Your task to perform on an android device: Add "logitech g pro" to the cart on ebay.com, then select checkout. Image 0: 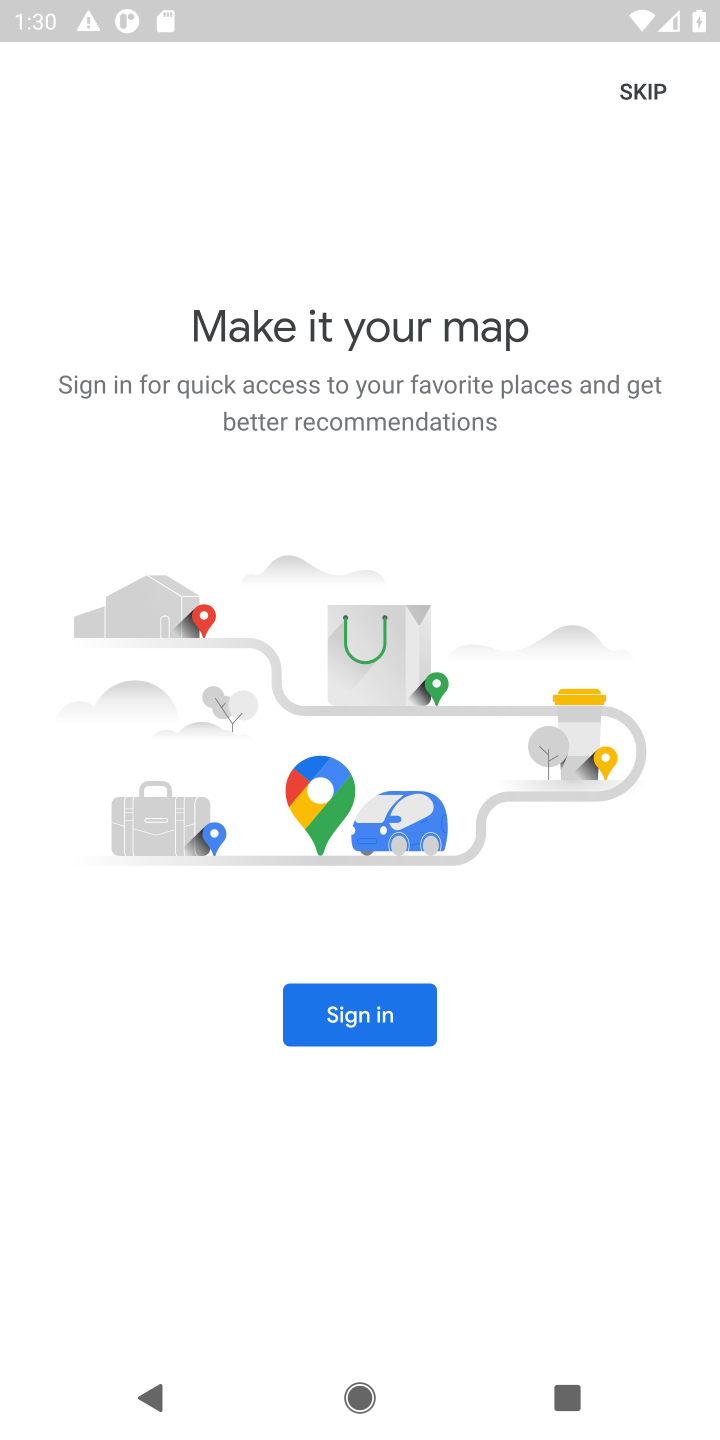
Step 0: press home button
Your task to perform on an android device: Add "logitech g pro" to the cart on ebay.com, then select checkout. Image 1: 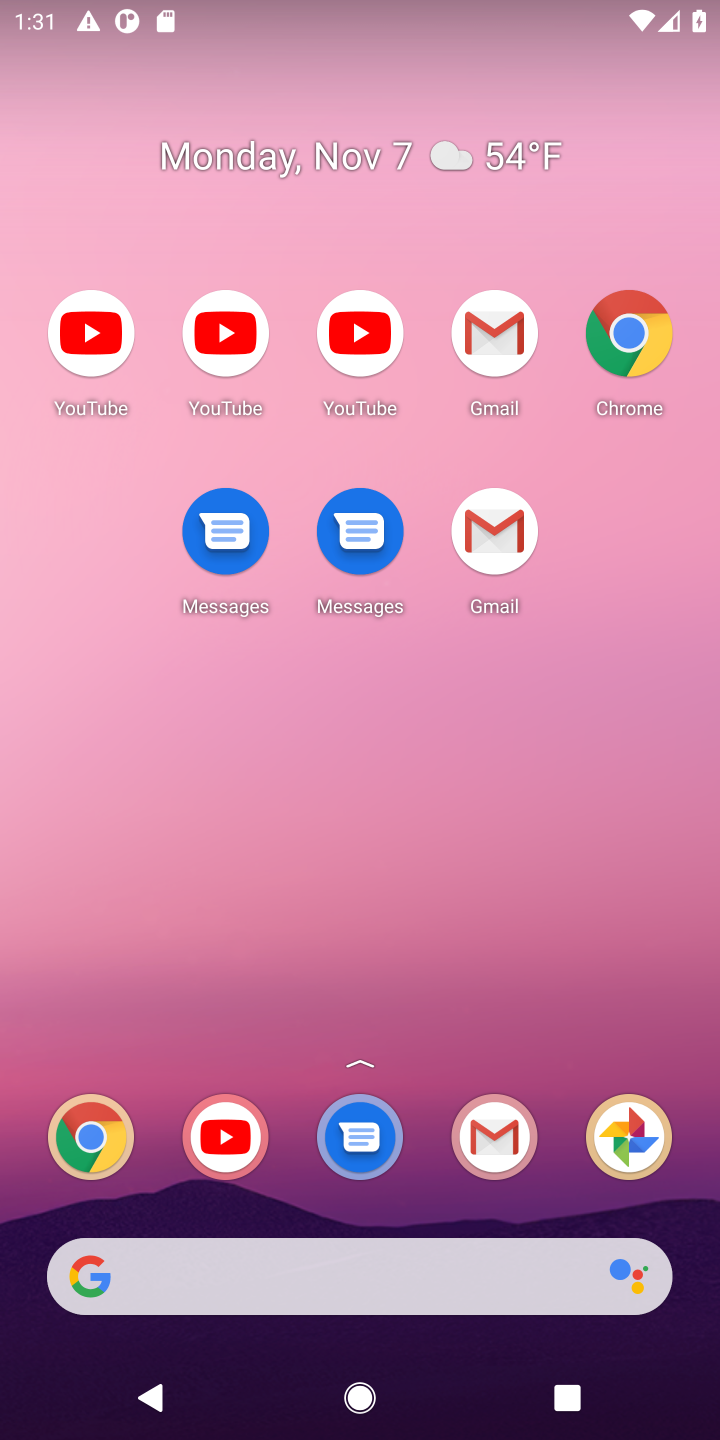
Step 1: drag from (437, 1200) to (493, 91)
Your task to perform on an android device: Add "logitech g pro" to the cart on ebay.com, then select checkout. Image 2: 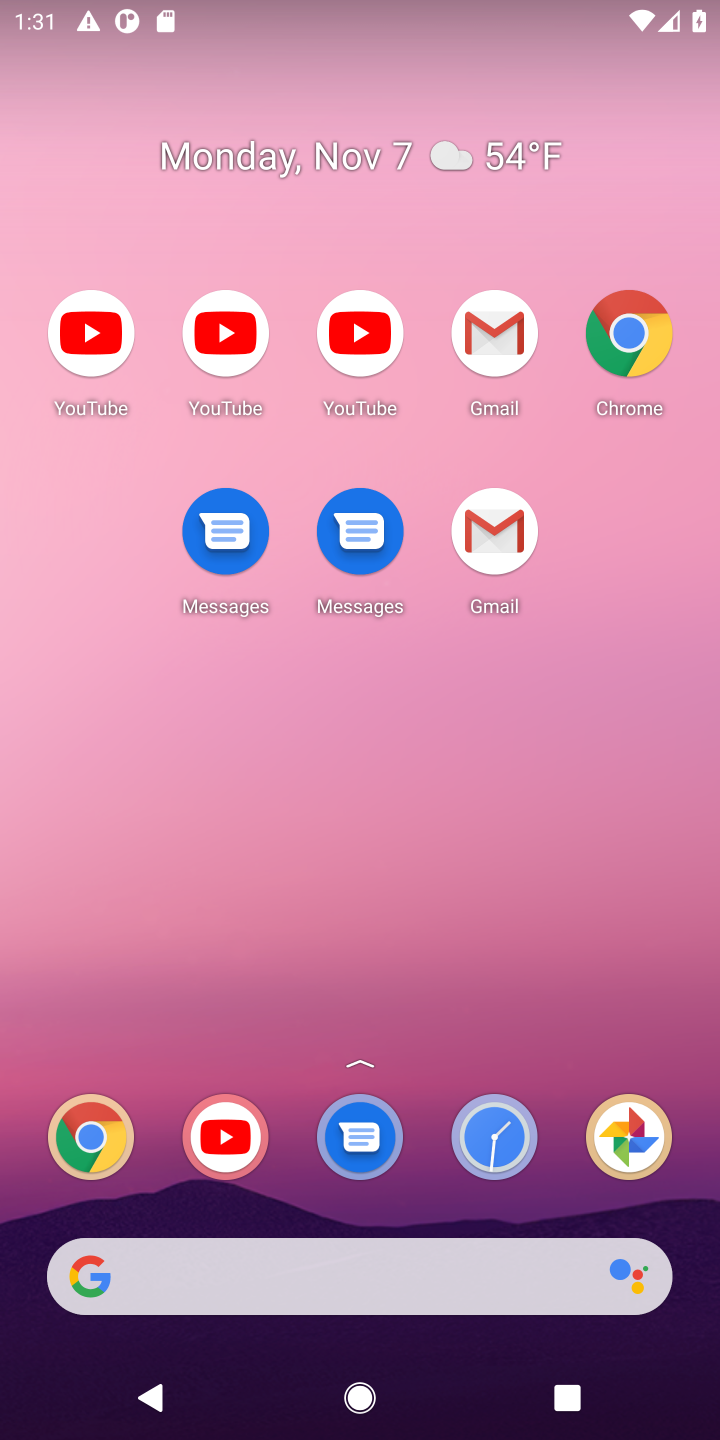
Step 2: drag from (429, 1194) to (350, 264)
Your task to perform on an android device: Add "logitech g pro" to the cart on ebay.com, then select checkout. Image 3: 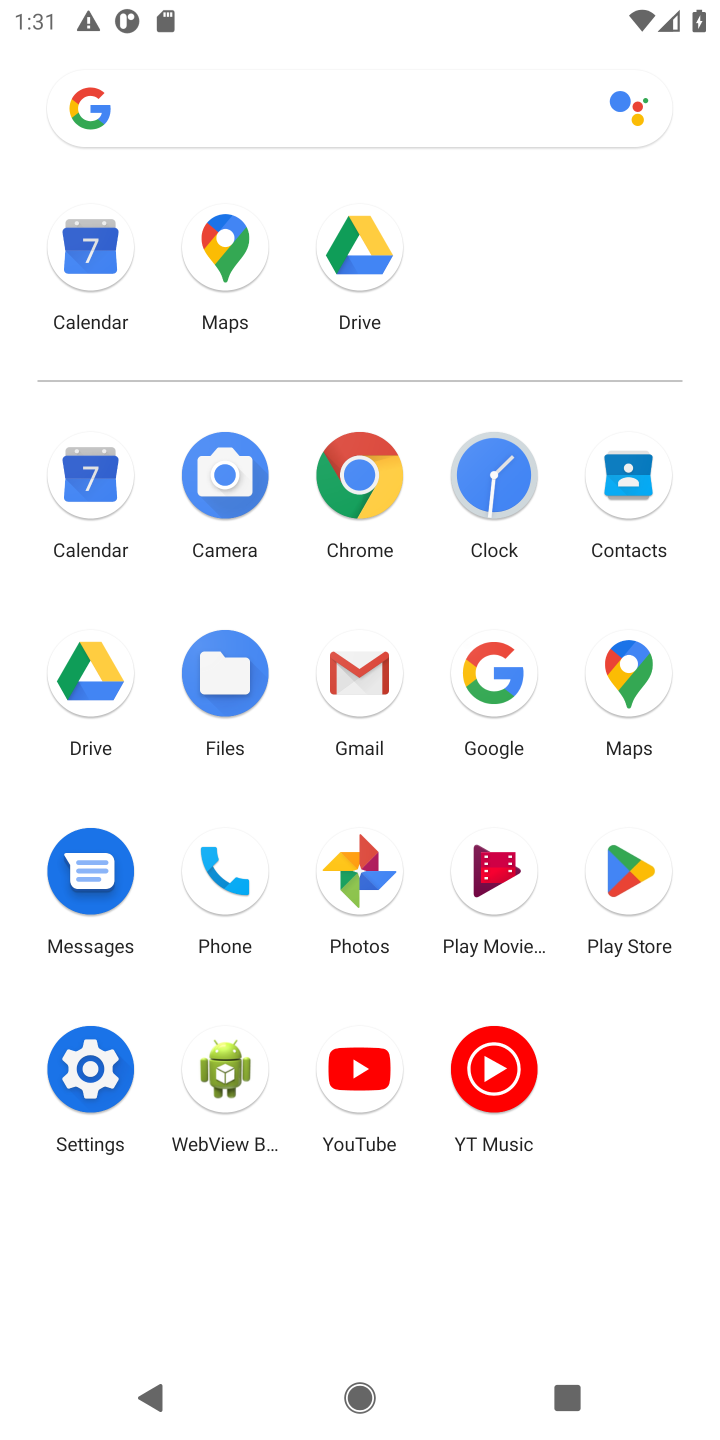
Step 3: click (360, 464)
Your task to perform on an android device: Add "logitech g pro" to the cart on ebay.com, then select checkout. Image 4: 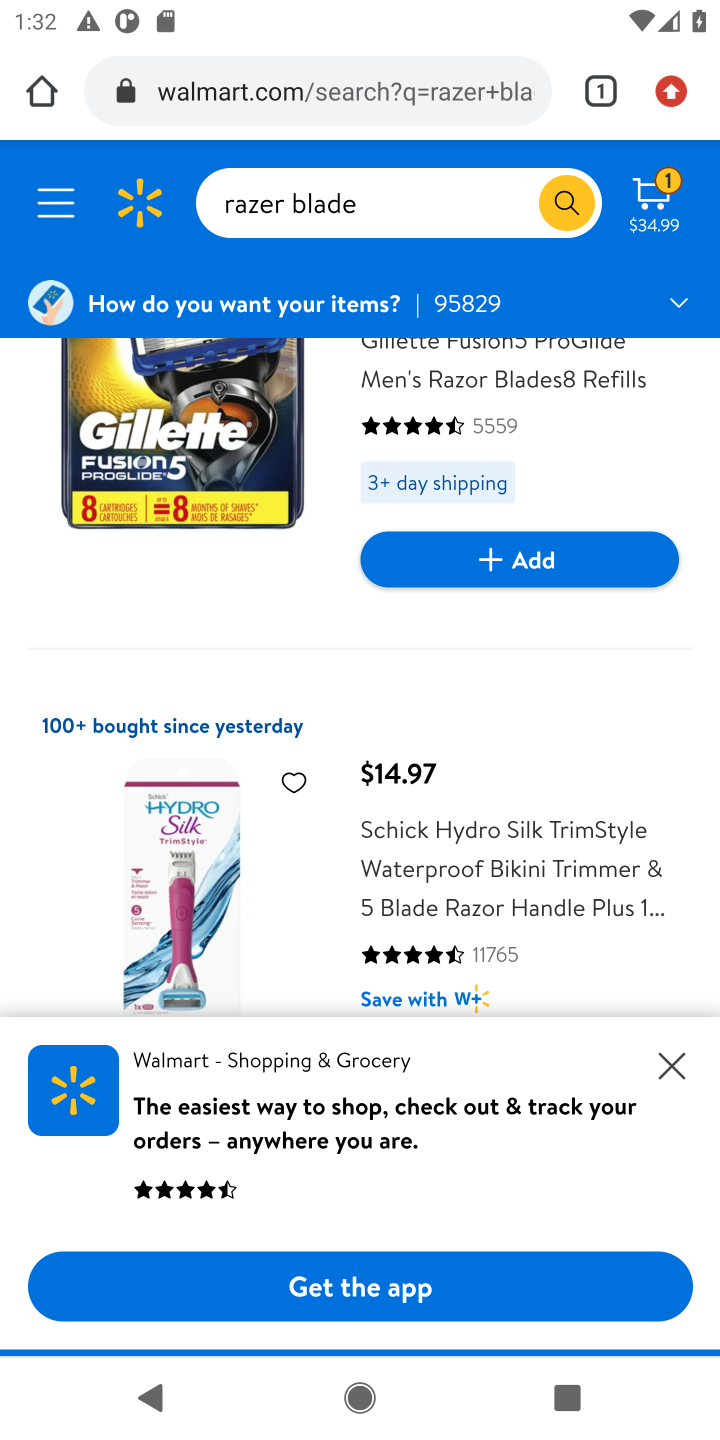
Step 4: click (401, 76)
Your task to perform on an android device: Add "logitech g pro" to the cart on ebay.com, then select checkout. Image 5: 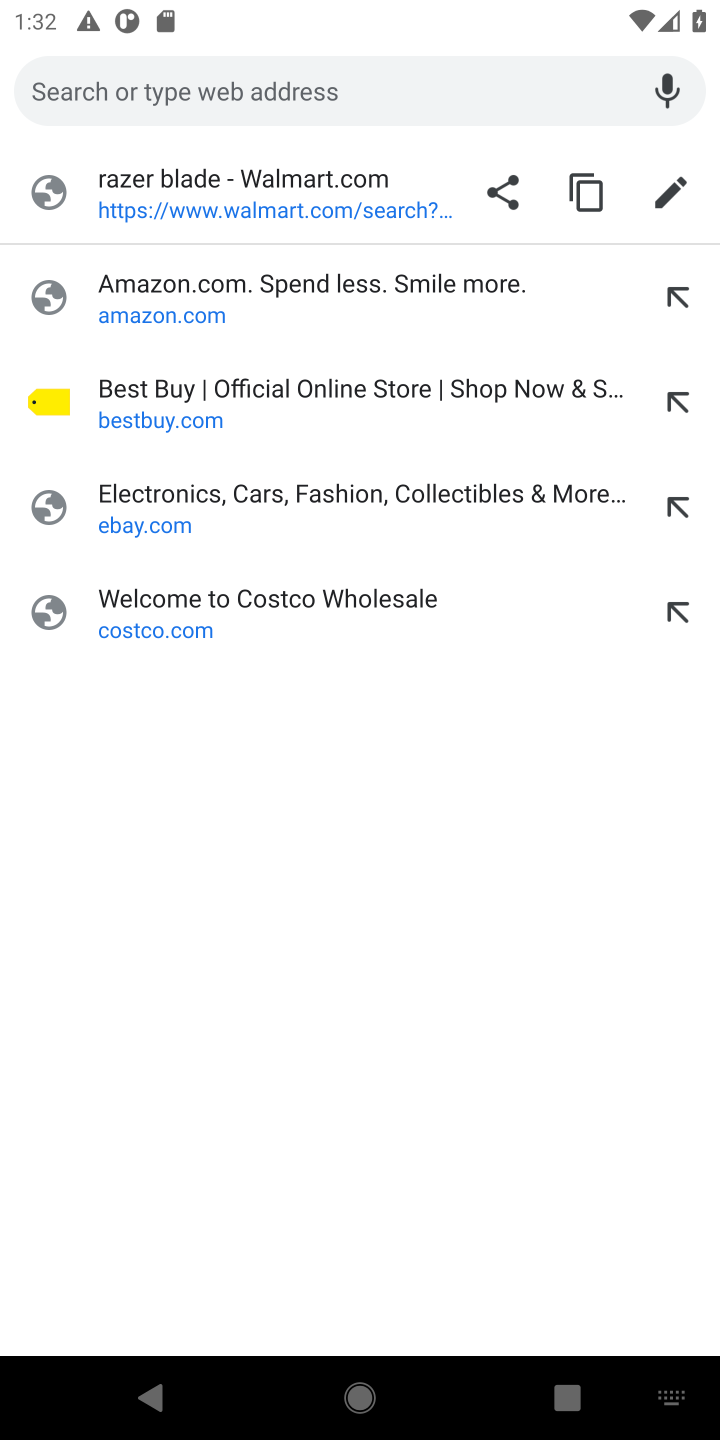
Step 5: type "ebay.com"
Your task to perform on an android device: Add "logitech g pro" to the cart on ebay.com, then select checkout. Image 6: 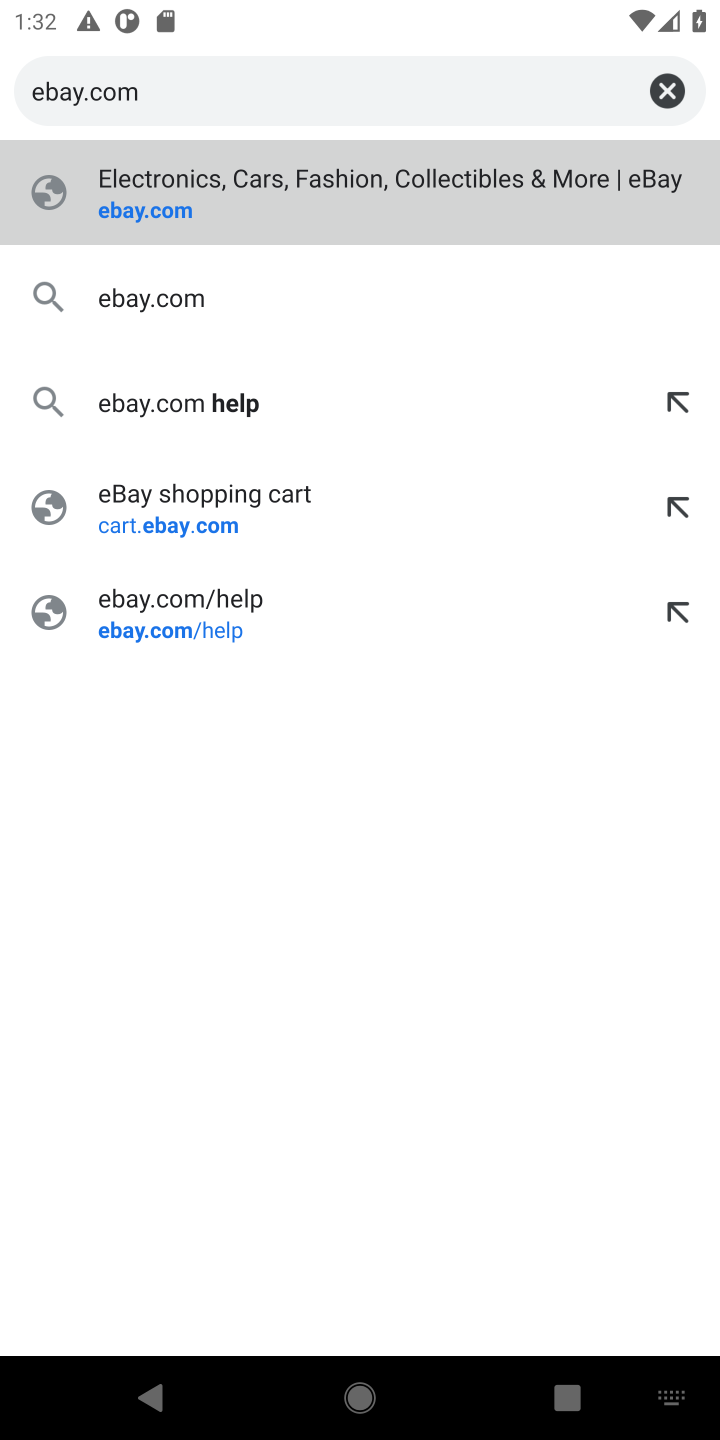
Step 6: press enter
Your task to perform on an android device: Add "logitech g pro" to the cart on ebay.com, then select checkout. Image 7: 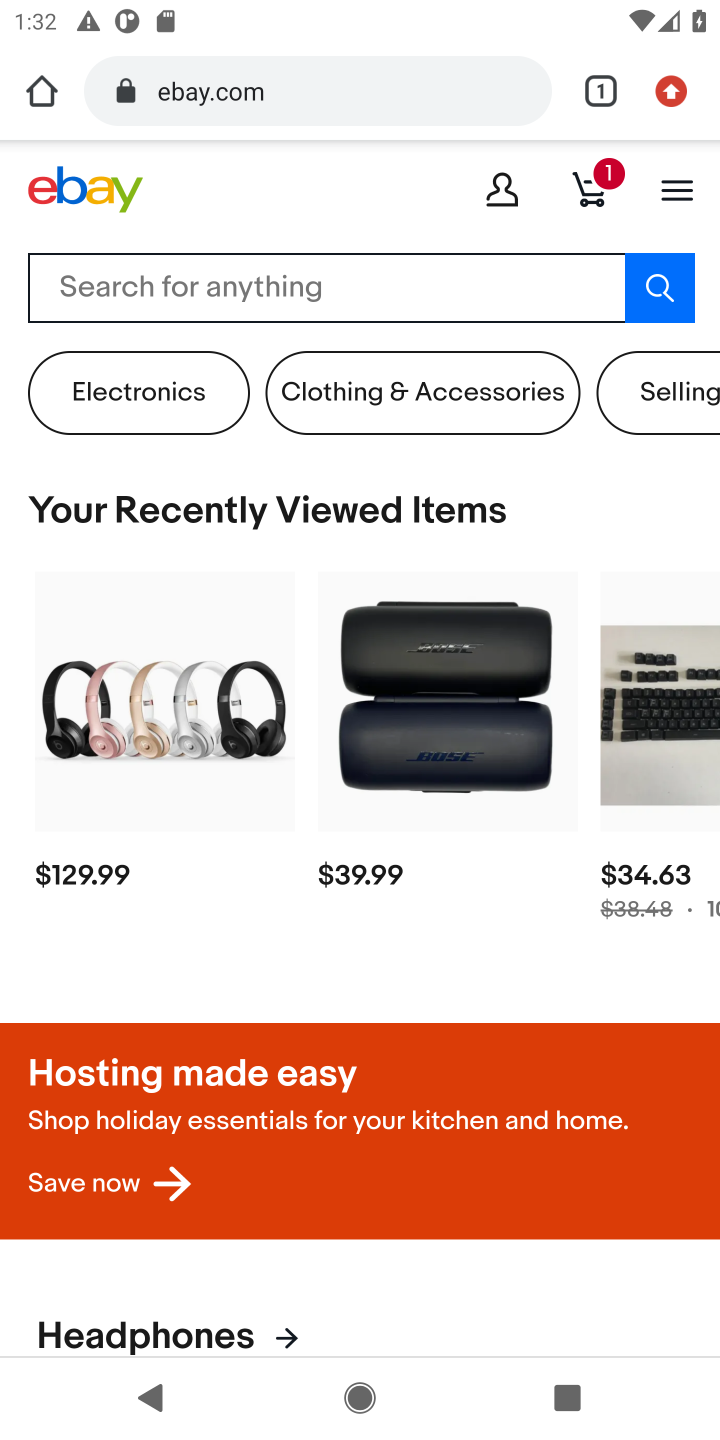
Step 7: click (462, 275)
Your task to perform on an android device: Add "logitech g pro" to the cart on ebay.com, then select checkout. Image 8: 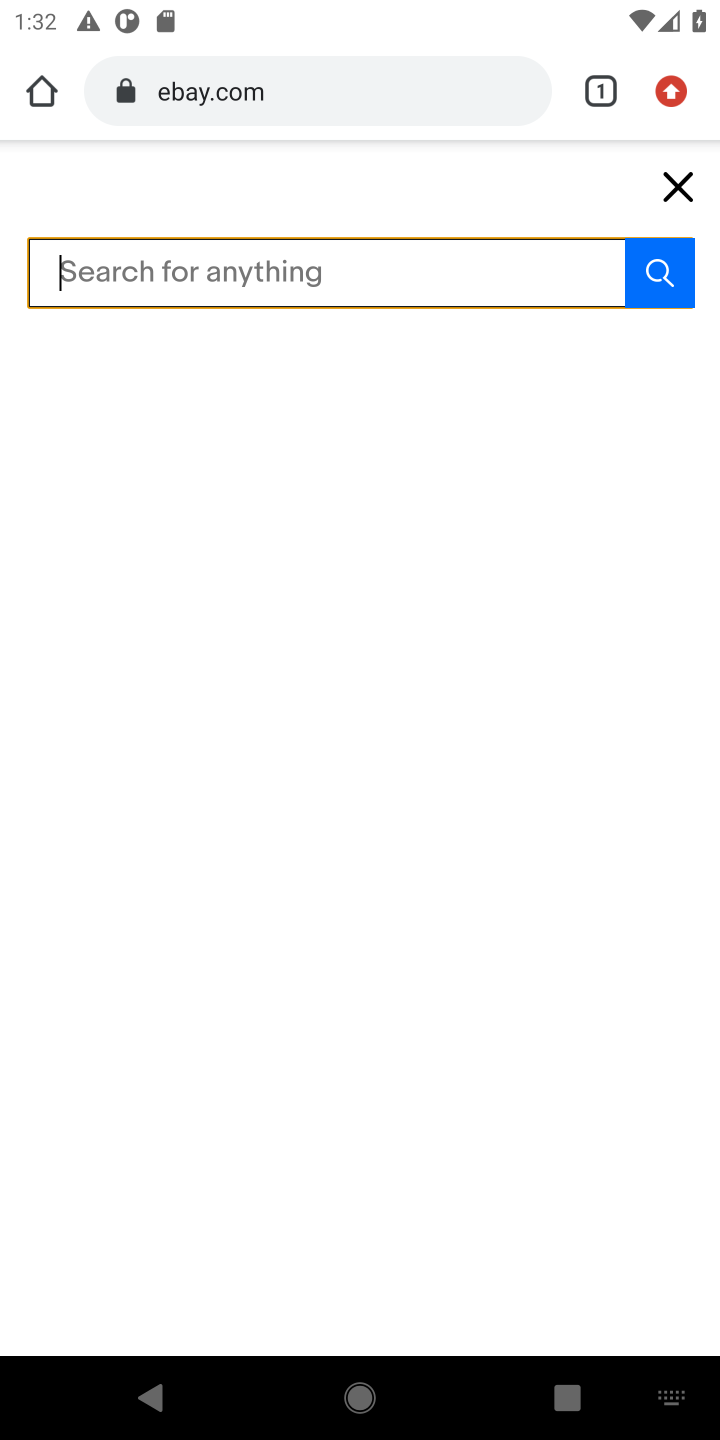
Step 8: type "logitech g pro"
Your task to perform on an android device: Add "logitech g pro" to the cart on ebay.com, then select checkout. Image 9: 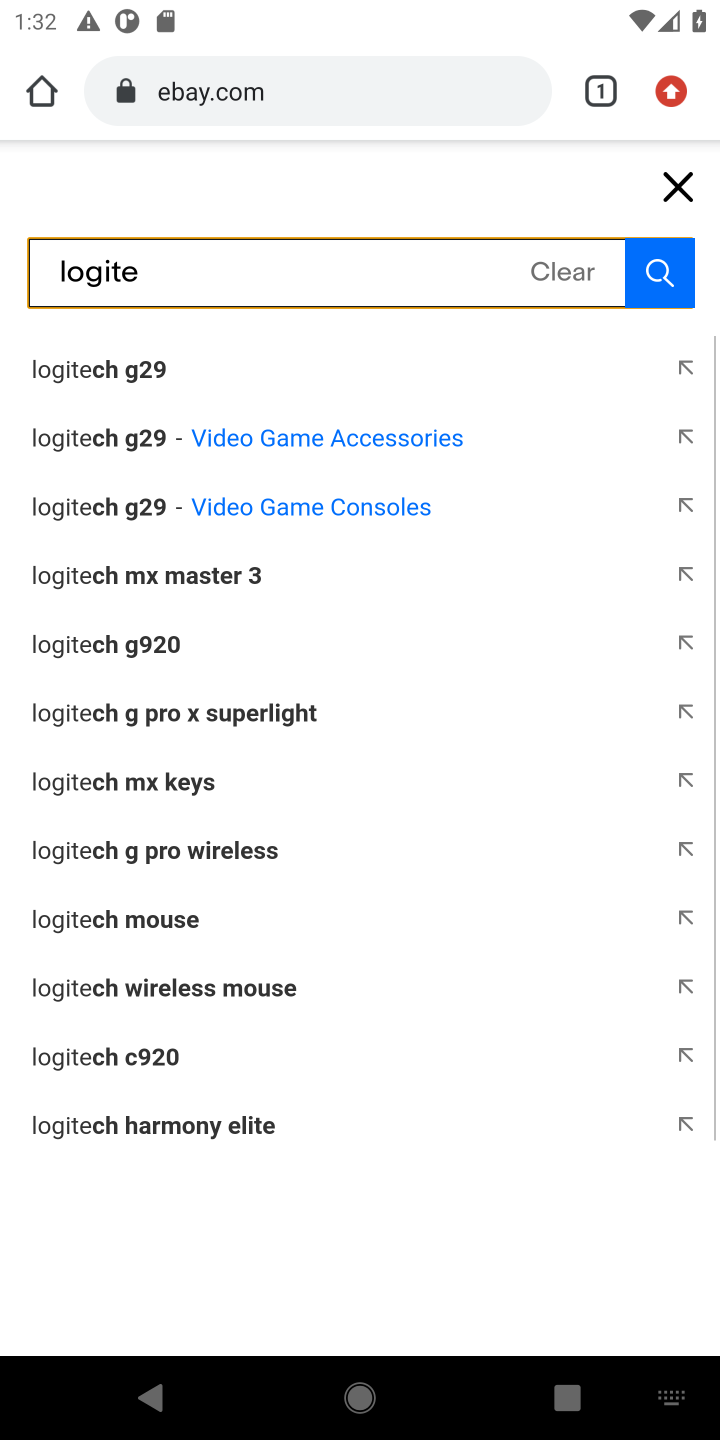
Step 9: press enter
Your task to perform on an android device: Add "logitech g pro" to the cart on ebay.com, then select checkout. Image 10: 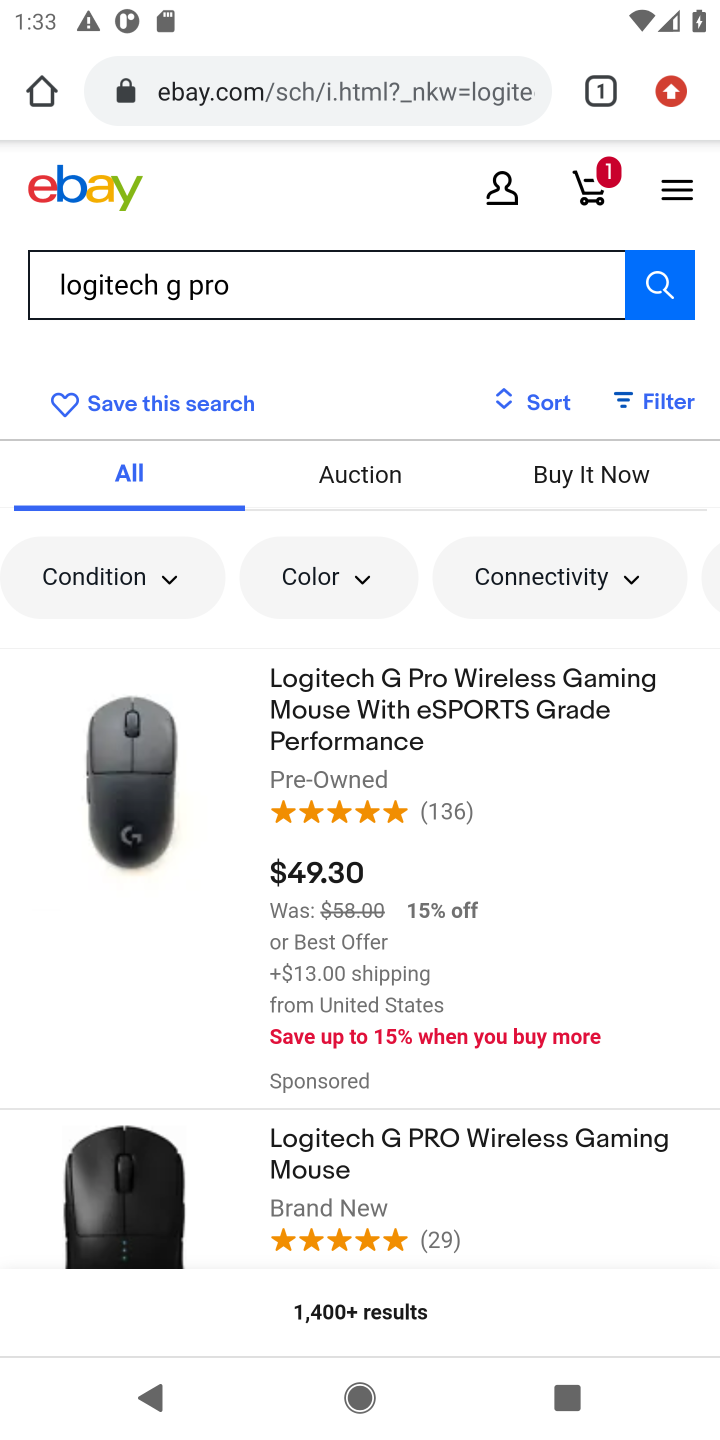
Step 10: click (428, 687)
Your task to perform on an android device: Add "logitech g pro" to the cart on ebay.com, then select checkout. Image 11: 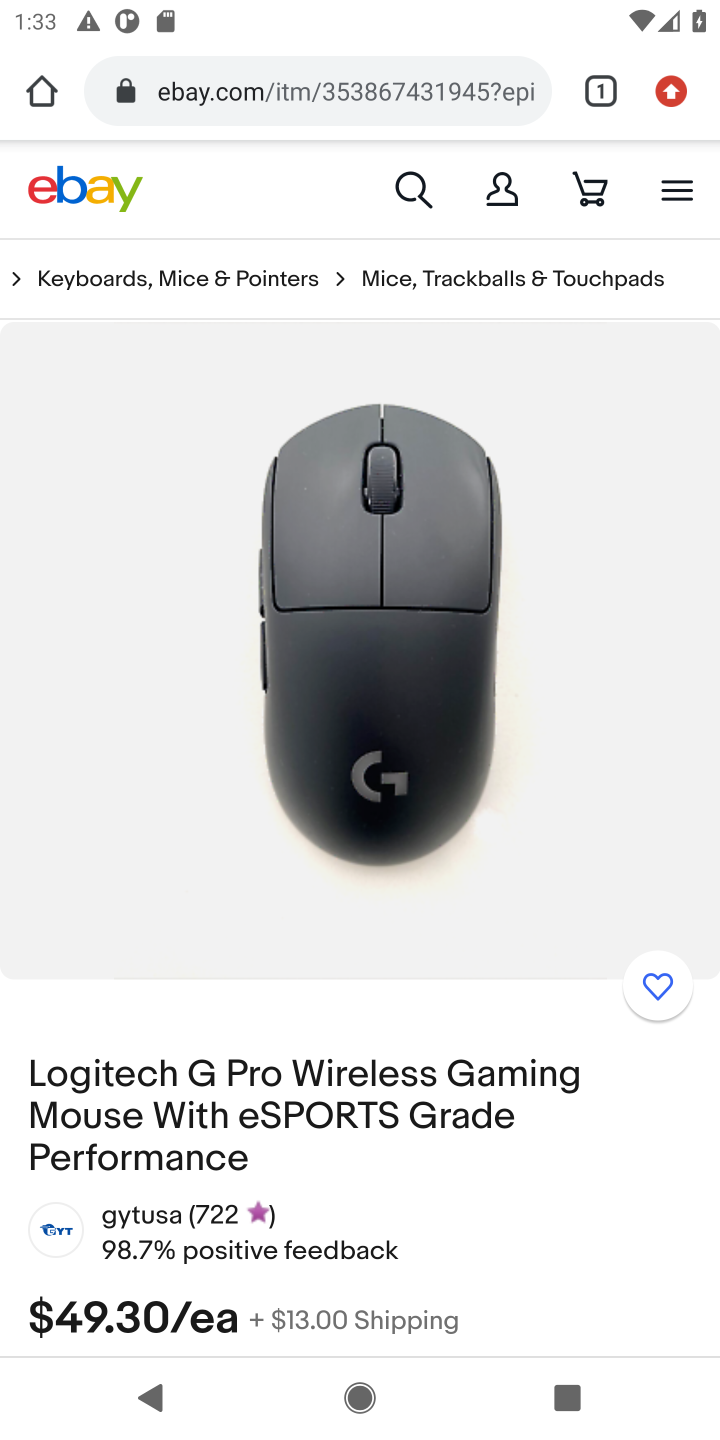
Step 11: drag from (471, 1184) to (355, 296)
Your task to perform on an android device: Add "logitech g pro" to the cart on ebay.com, then select checkout. Image 12: 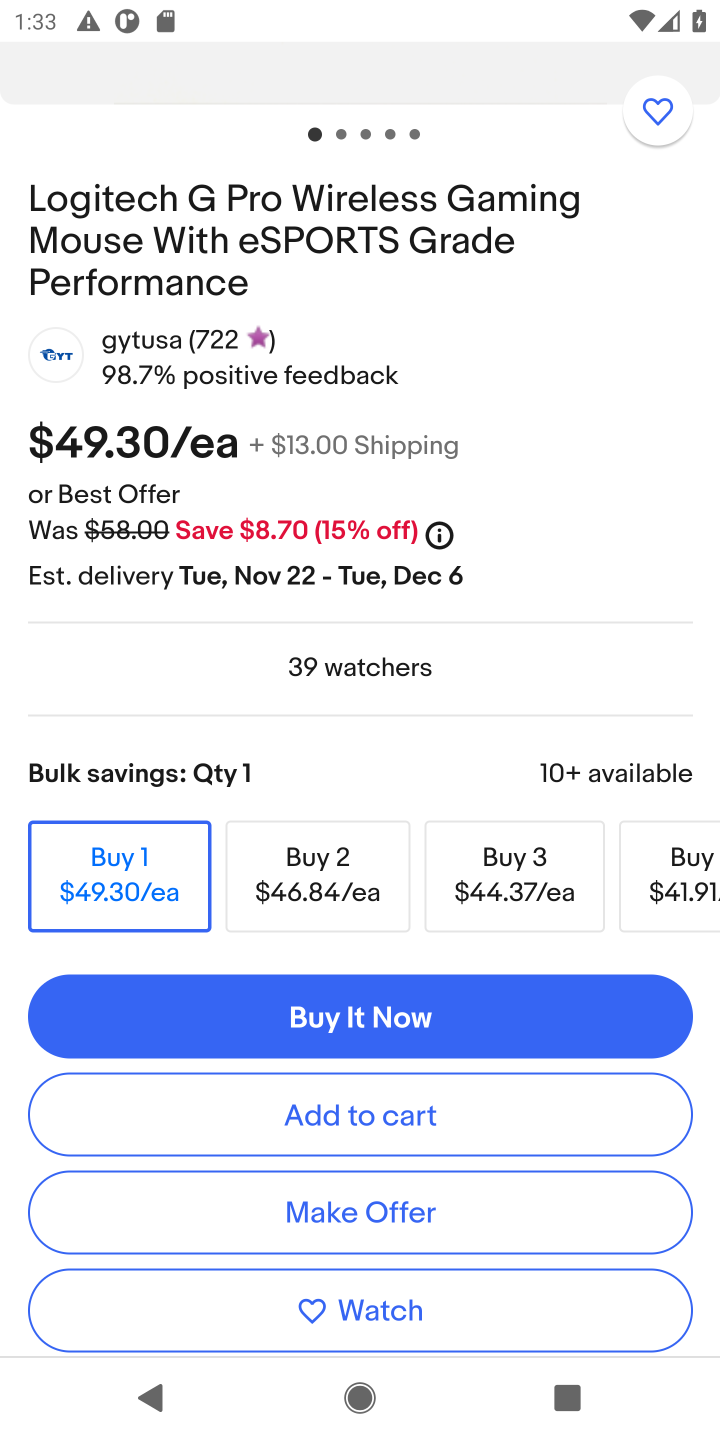
Step 12: click (437, 1104)
Your task to perform on an android device: Add "logitech g pro" to the cart on ebay.com, then select checkout. Image 13: 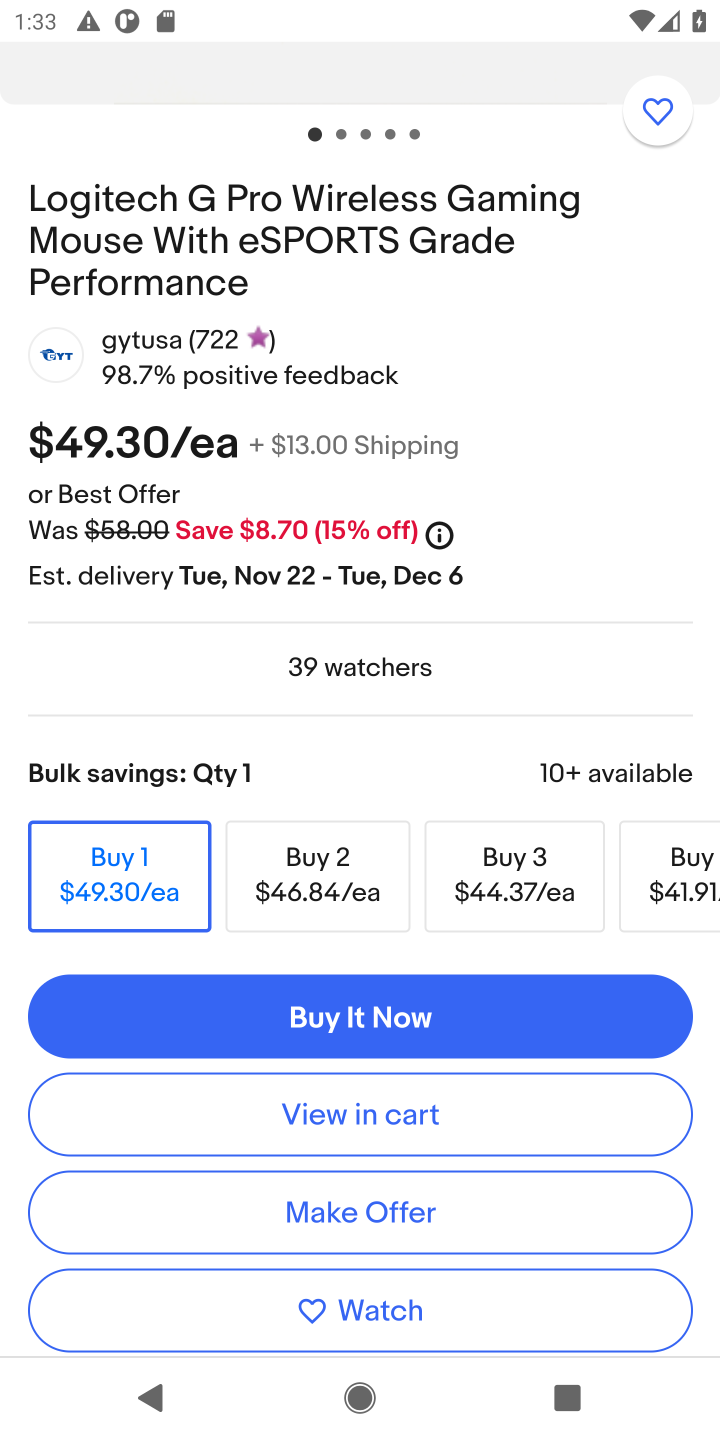
Step 13: click (437, 1119)
Your task to perform on an android device: Add "logitech g pro" to the cart on ebay.com, then select checkout. Image 14: 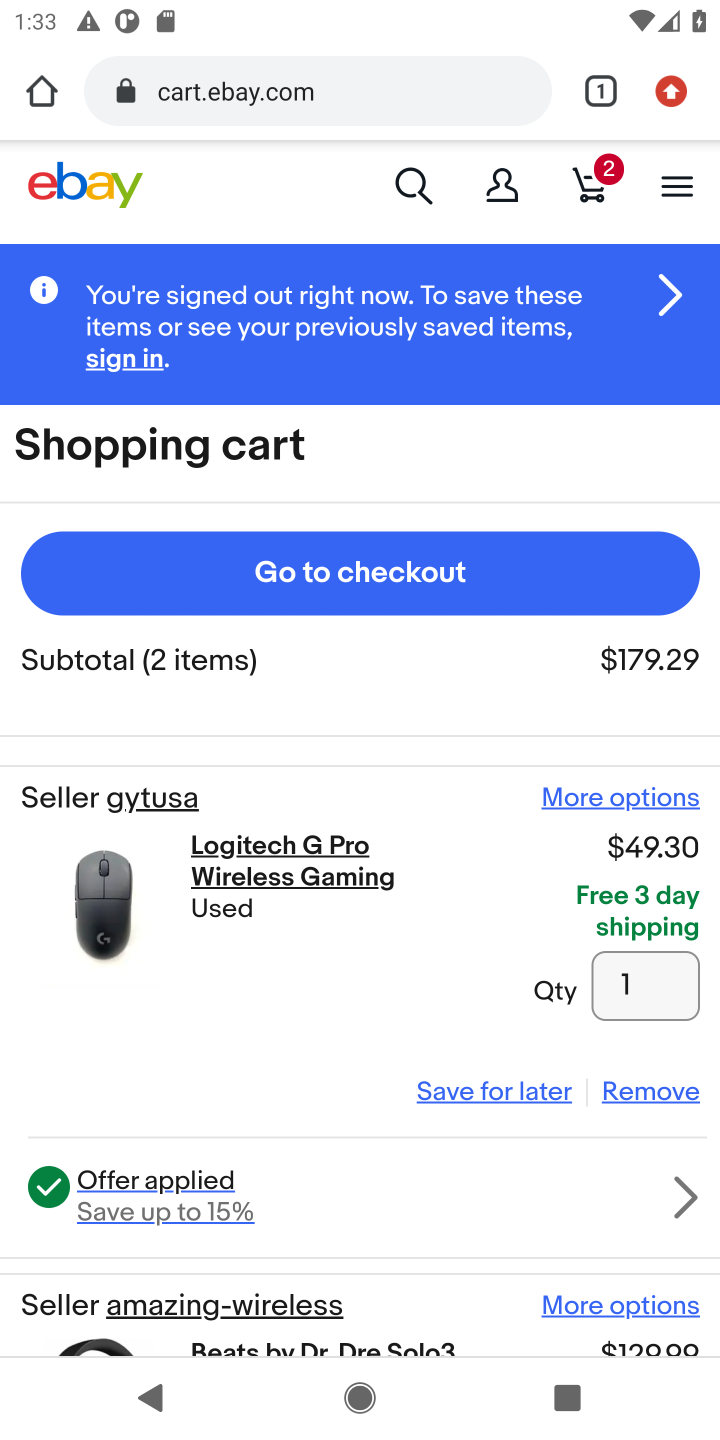
Step 14: click (450, 579)
Your task to perform on an android device: Add "logitech g pro" to the cart on ebay.com, then select checkout. Image 15: 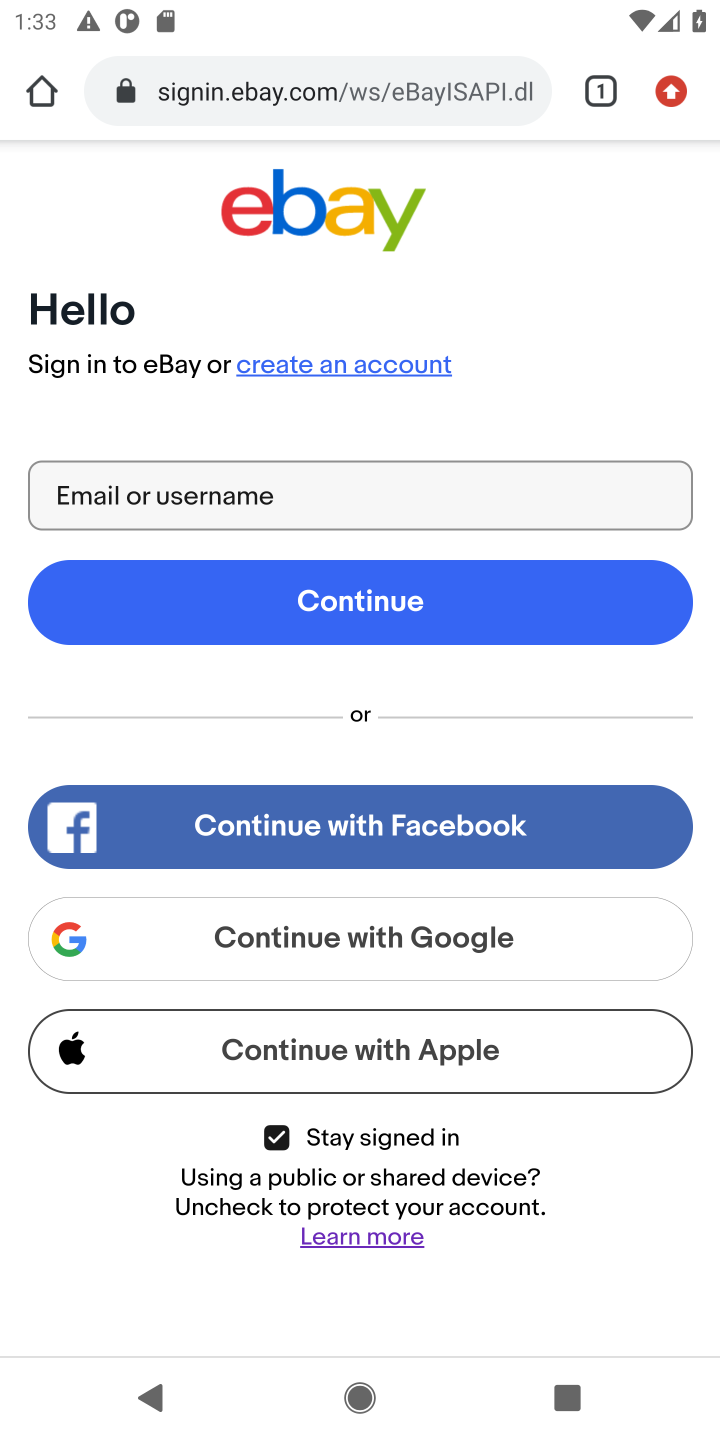
Step 15: task complete